Your task to perform on an android device: Open the phone app and click the voicemail tab. Image 0: 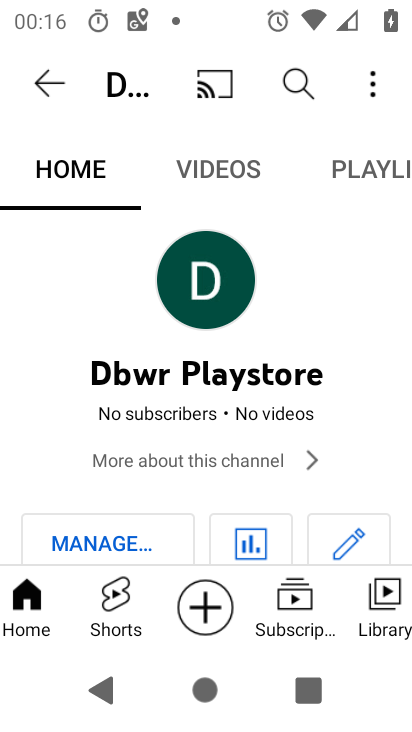
Step 0: press home button
Your task to perform on an android device: Open the phone app and click the voicemail tab. Image 1: 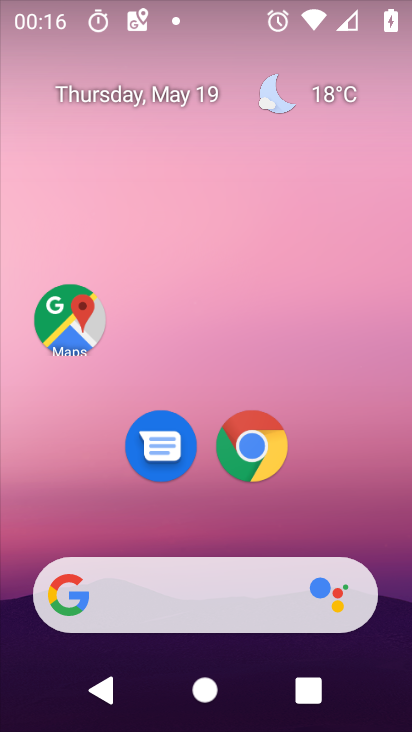
Step 1: drag from (166, 561) to (273, 169)
Your task to perform on an android device: Open the phone app and click the voicemail tab. Image 2: 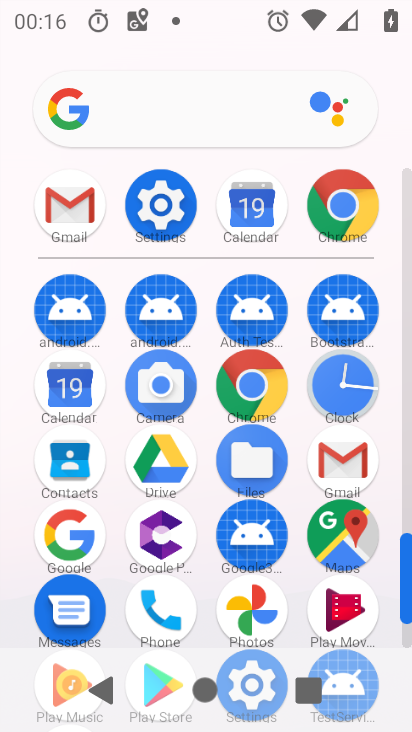
Step 2: click (164, 609)
Your task to perform on an android device: Open the phone app and click the voicemail tab. Image 3: 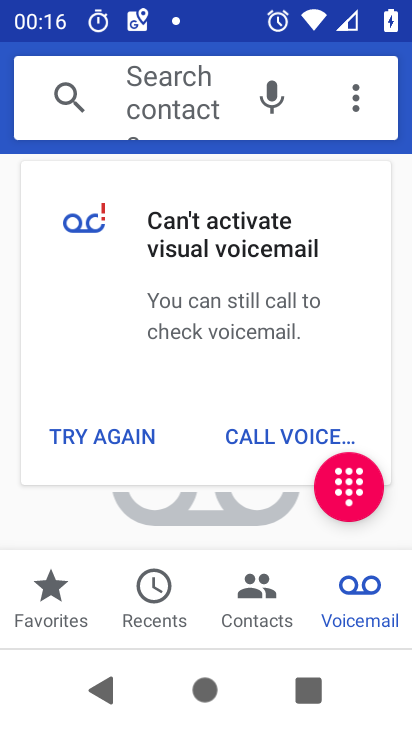
Step 3: click (376, 608)
Your task to perform on an android device: Open the phone app and click the voicemail tab. Image 4: 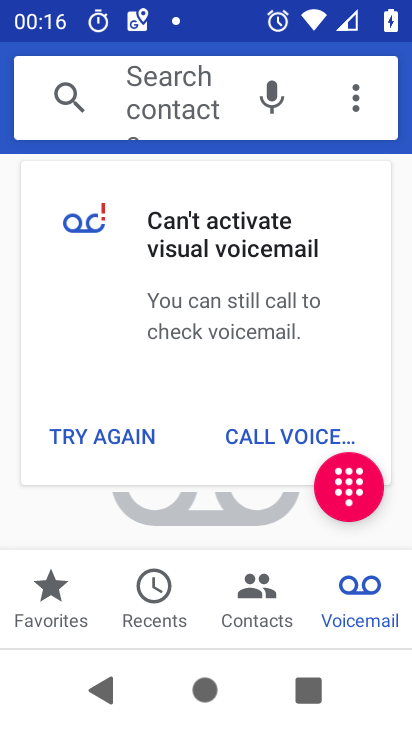
Step 4: task complete